Your task to perform on an android device: toggle notifications settings in the gmail app Image 0: 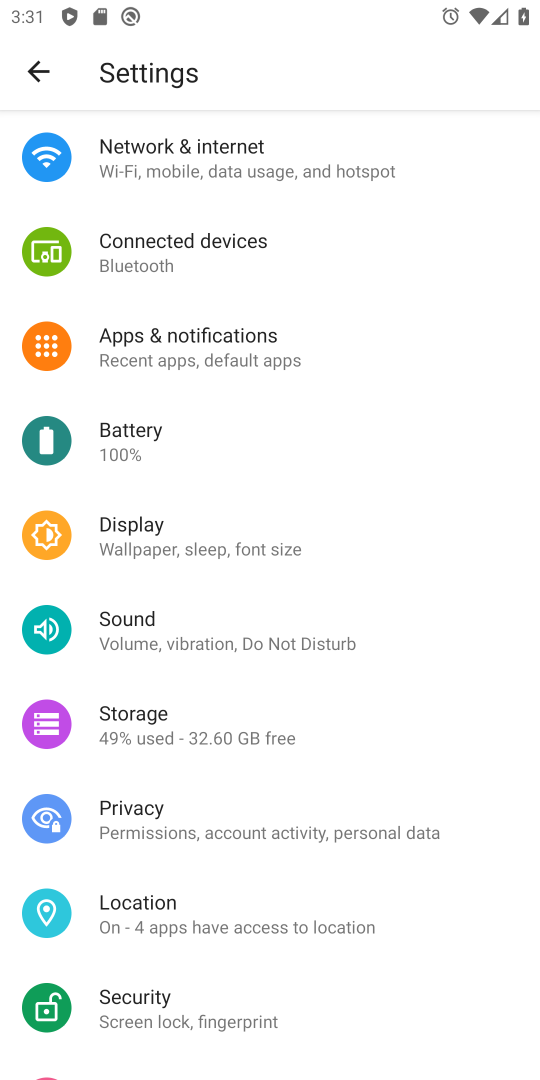
Step 0: press home button
Your task to perform on an android device: toggle notifications settings in the gmail app Image 1: 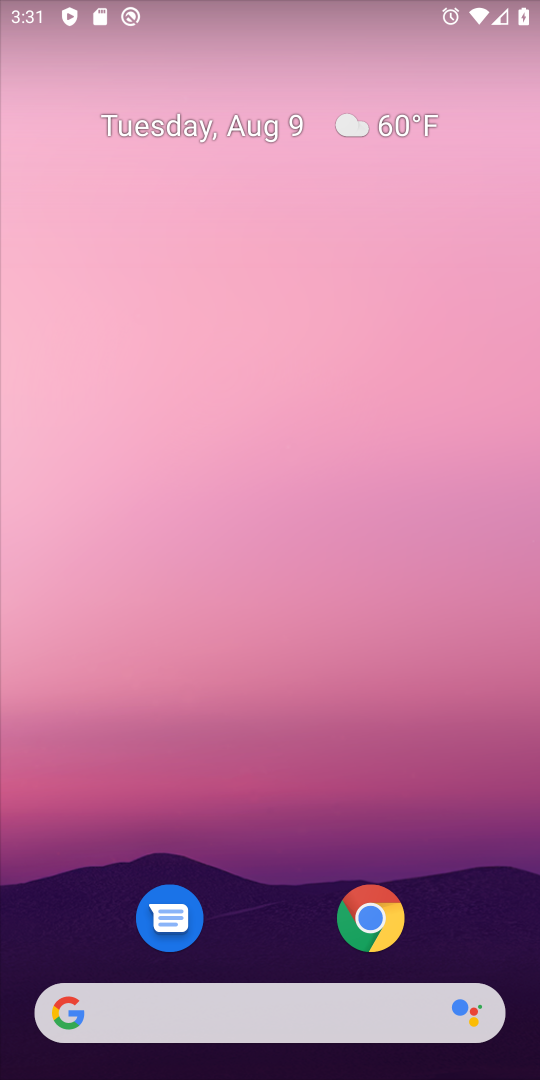
Step 1: drag from (243, 1015) to (294, 84)
Your task to perform on an android device: toggle notifications settings in the gmail app Image 2: 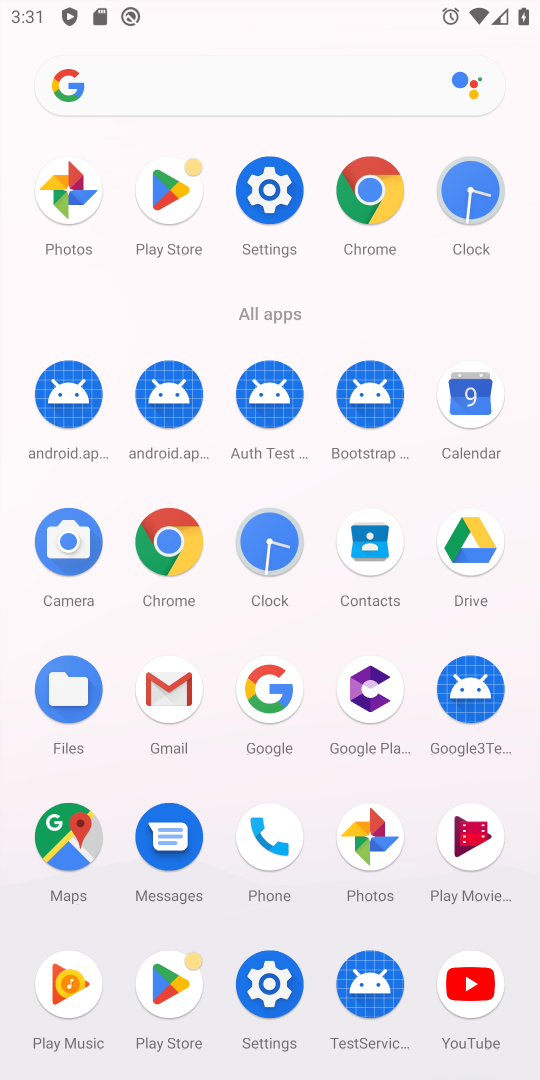
Step 2: click (167, 741)
Your task to perform on an android device: toggle notifications settings in the gmail app Image 3: 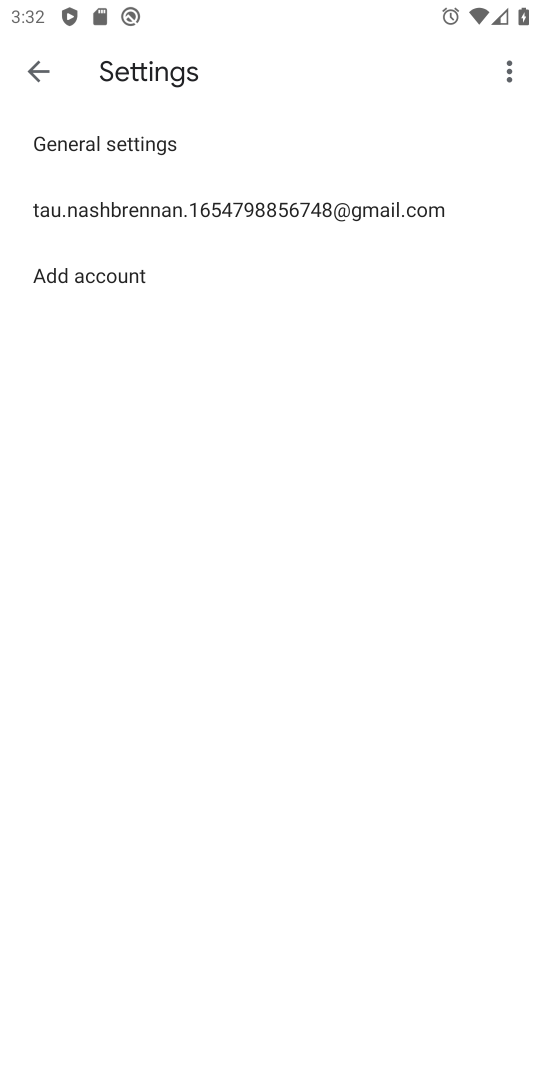
Step 3: click (262, 213)
Your task to perform on an android device: toggle notifications settings in the gmail app Image 4: 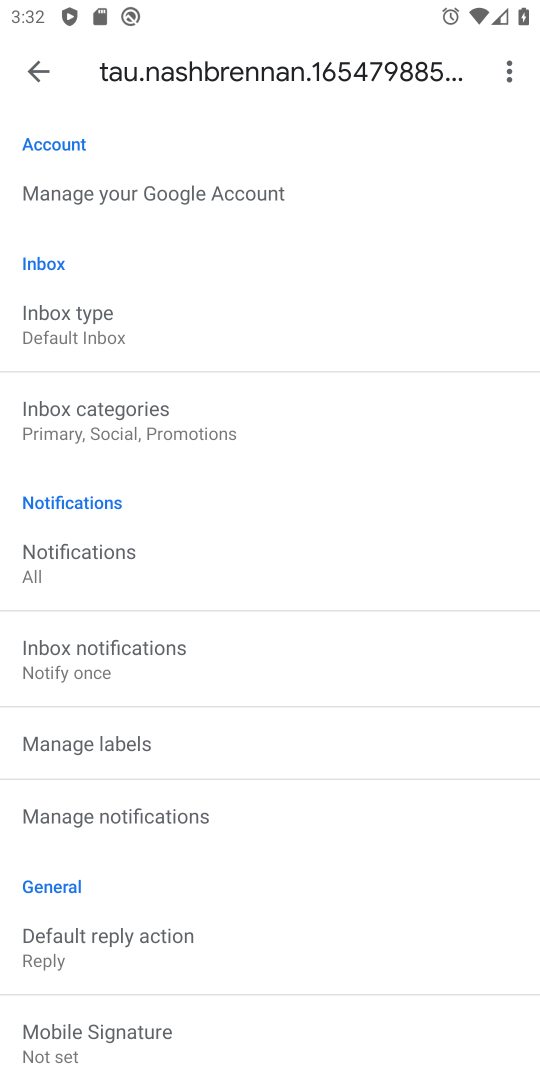
Step 4: click (155, 811)
Your task to perform on an android device: toggle notifications settings in the gmail app Image 5: 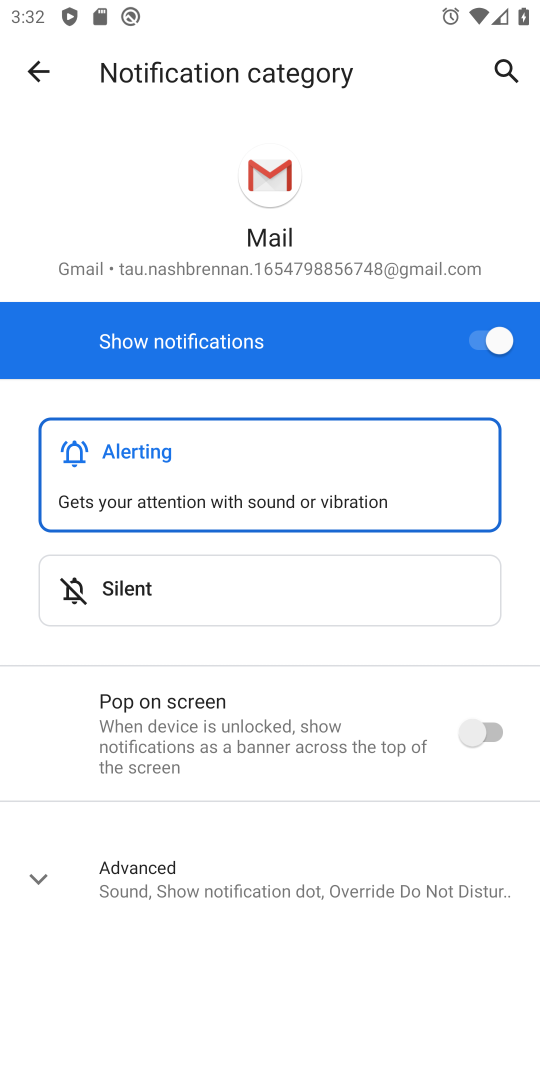
Step 5: click (337, 600)
Your task to perform on an android device: toggle notifications settings in the gmail app Image 6: 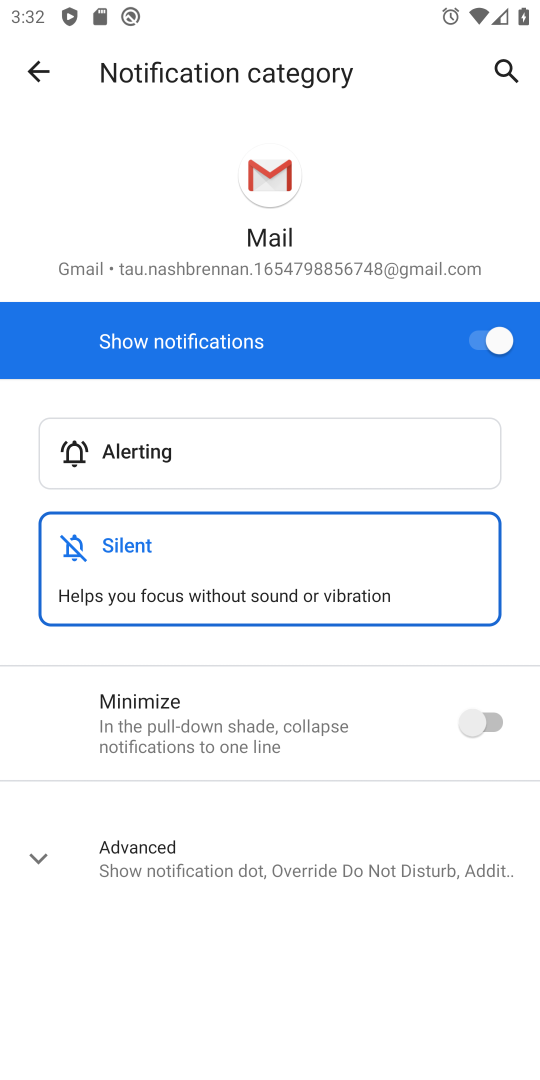
Step 6: task complete